Your task to perform on an android device: delete browsing data in the chrome app Image 0: 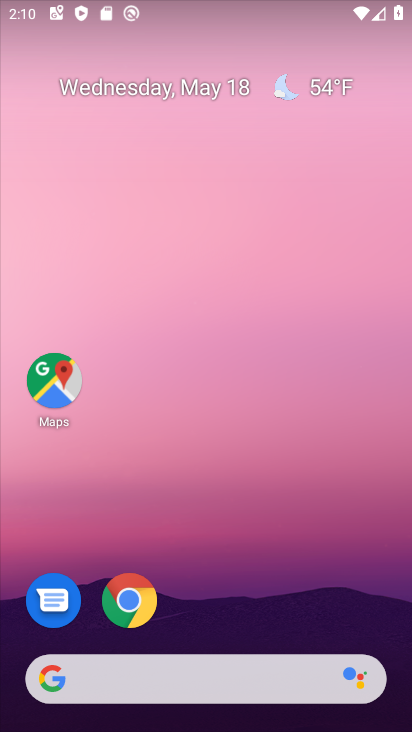
Step 0: click (135, 599)
Your task to perform on an android device: delete browsing data in the chrome app Image 1: 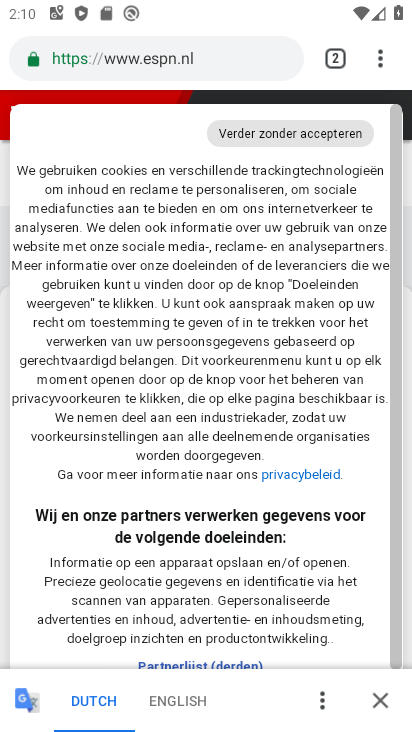
Step 1: click (390, 68)
Your task to perform on an android device: delete browsing data in the chrome app Image 2: 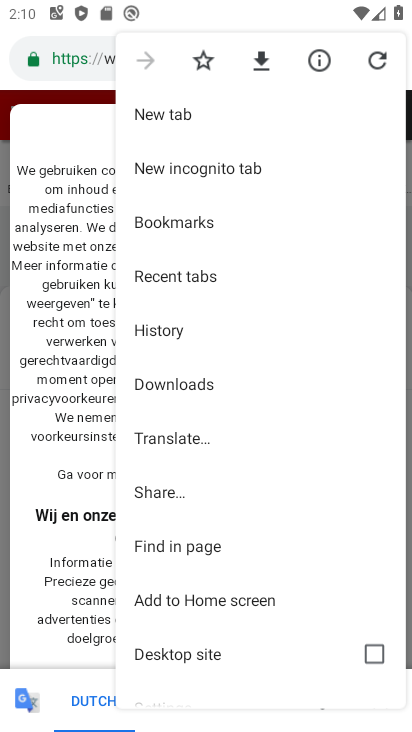
Step 2: drag from (226, 573) to (220, 271)
Your task to perform on an android device: delete browsing data in the chrome app Image 3: 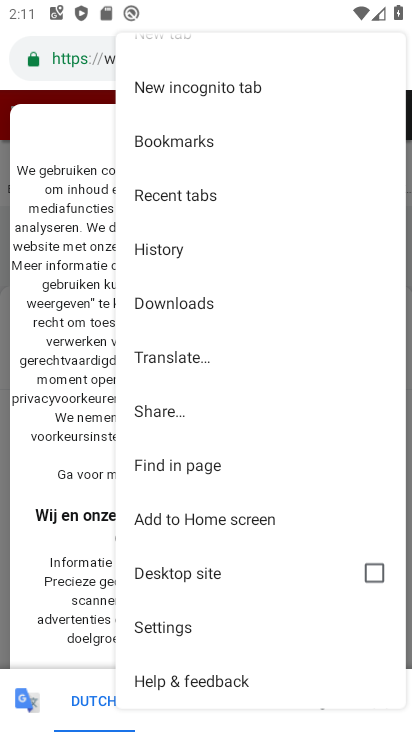
Step 3: click (164, 625)
Your task to perform on an android device: delete browsing data in the chrome app Image 4: 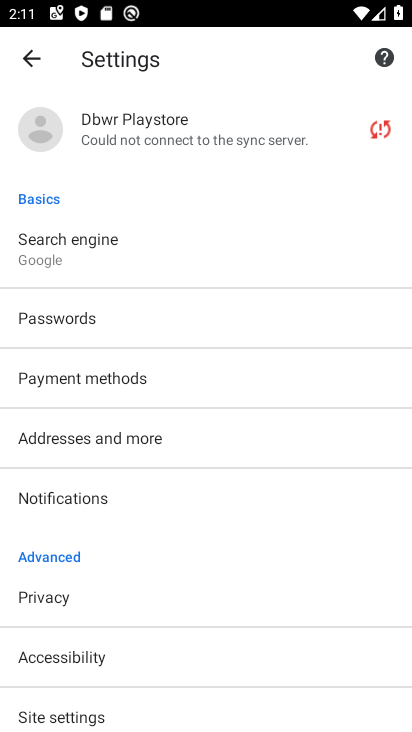
Step 4: drag from (164, 625) to (210, 218)
Your task to perform on an android device: delete browsing data in the chrome app Image 5: 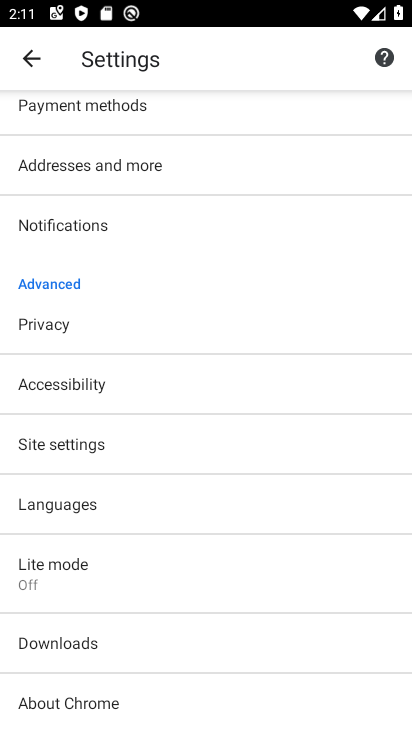
Step 5: drag from (113, 627) to (171, 211)
Your task to perform on an android device: delete browsing data in the chrome app Image 6: 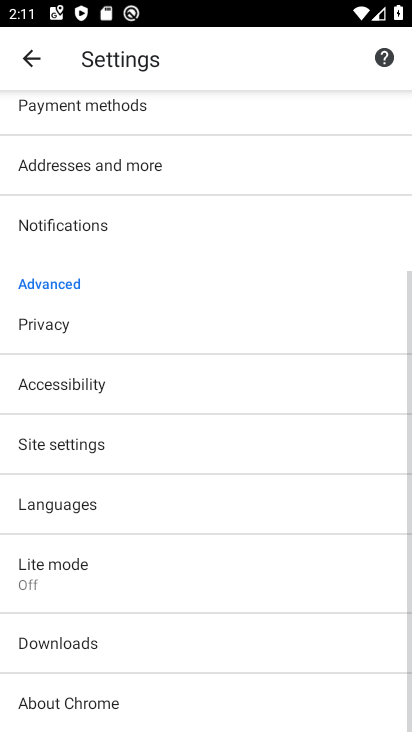
Step 6: drag from (171, 211) to (229, 580)
Your task to perform on an android device: delete browsing data in the chrome app Image 7: 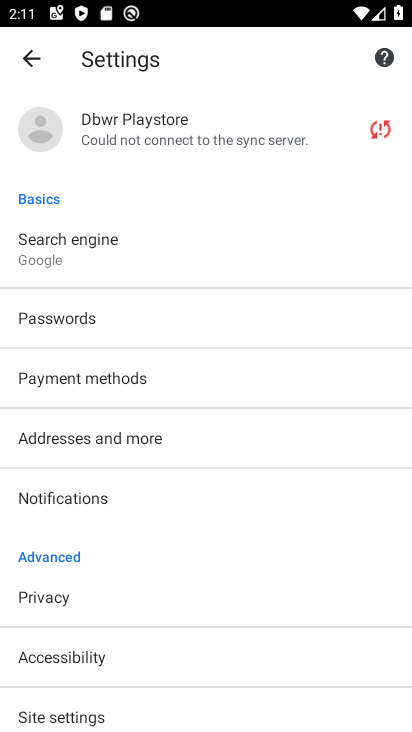
Step 7: drag from (104, 621) to (125, 269)
Your task to perform on an android device: delete browsing data in the chrome app Image 8: 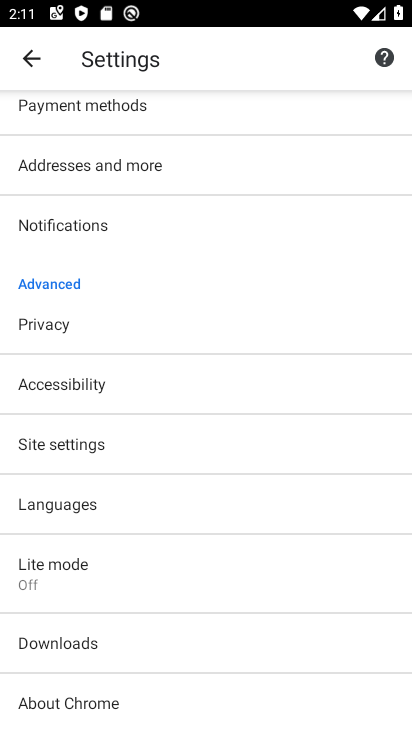
Step 8: click (36, 61)
Your task to perform on an android device: delete browsing data in the chrome app Image 9: 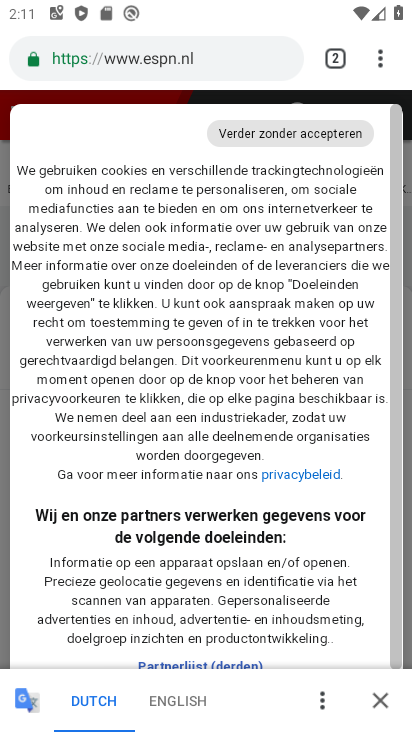
Step 9: click (391, 53)
Your task to perform on an android device: delete browsing data in the chrome app Image 10: 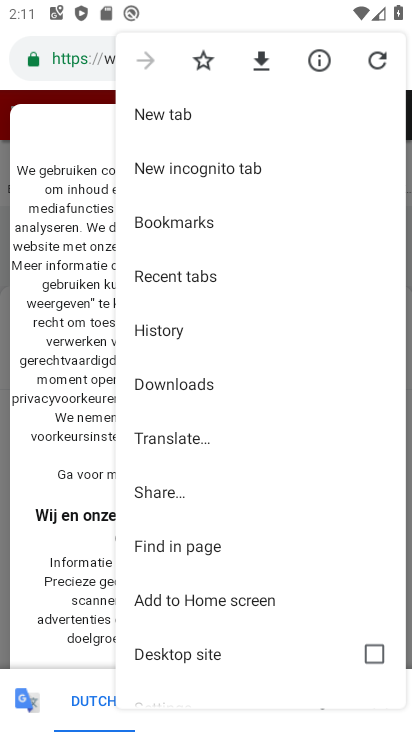
Step 10: click (202, 331)
Your task to perform on an android device: delete browsing data in the chrome app Image 11: 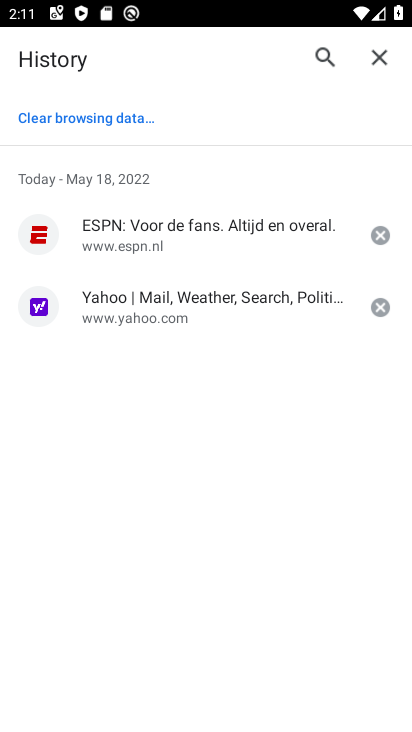
Step 11: click (130, 121)
Your task to perform on an android device: delete browsing data in the chrome app Image 12: 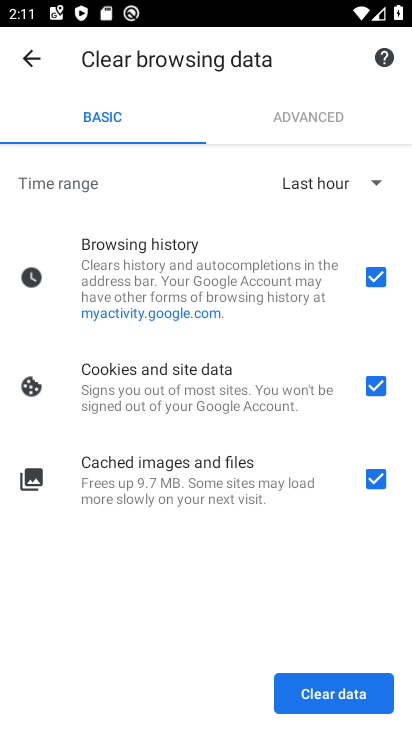
Step 12: click (371, 381)
Your task to perform on an android device: delete browsing data in the chrome app Image 13: 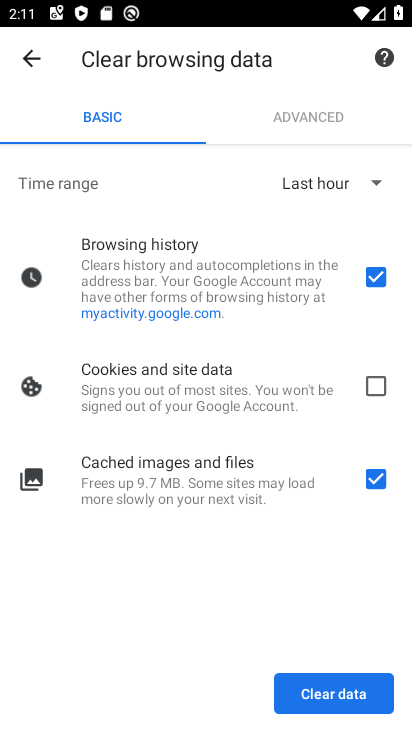
Step 13: click (380, 478)
Your task to perform on an android device: delete browsing data in the chrome app Image 14: 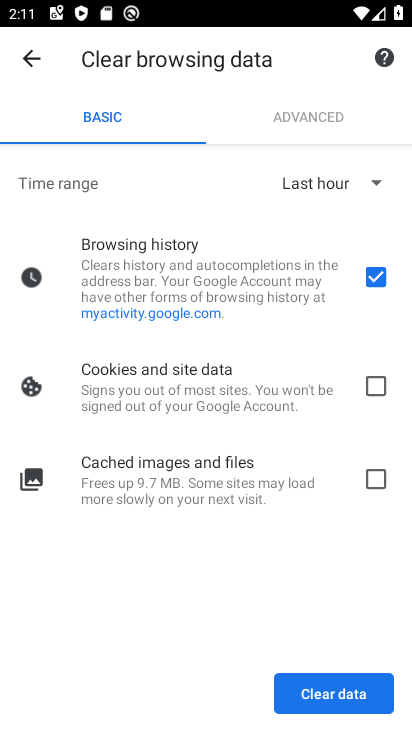
Step 14: click (368, 693)
Your task to perform on an android device: delete browsing data in the chrome app Image 15: 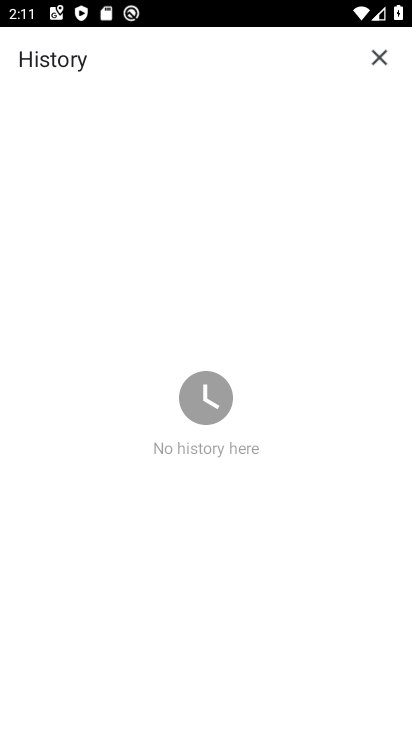
Step 15: task complete